Your task to perform on an android device: Add macbook pro 13 inch to the cart on ebay.com Image 0: 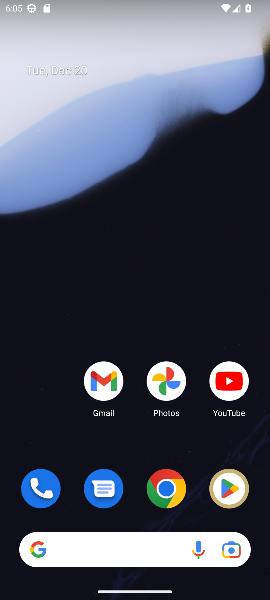
Step 0: click (63, 547)
Your task to perform on an android device: Add macbook pro 13 inch to the cart on ebay.com Image 1: 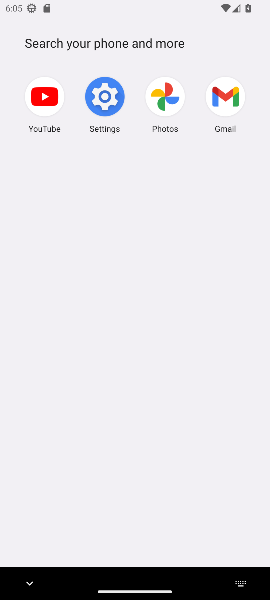
Step 1: press home button
Your task to perform on an android device: Add macbook pro 13 inch to the cart on ebay.com Image 2: 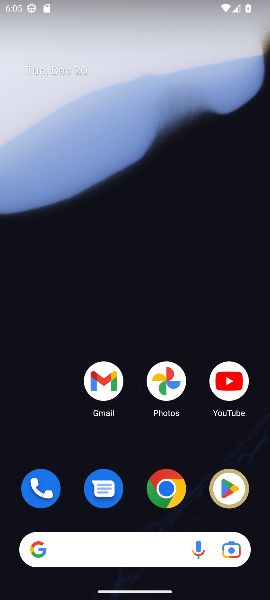
Step 2: drag from (65, 440) to (45, 30)
Your task to perform on an android device: Add macbook pro 13 inch to the cart on ebay.com Image 3: 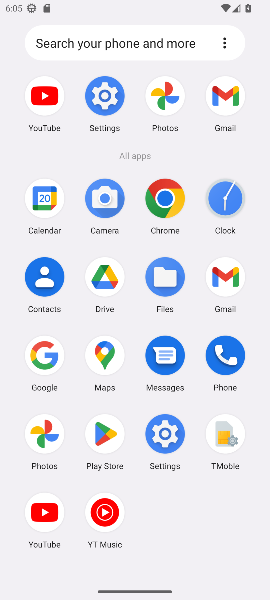
Step 3: click (43, 355)
Your task to perform on an android device: Add macbook pro 13 inch to the cart on ebay.com Image 4: 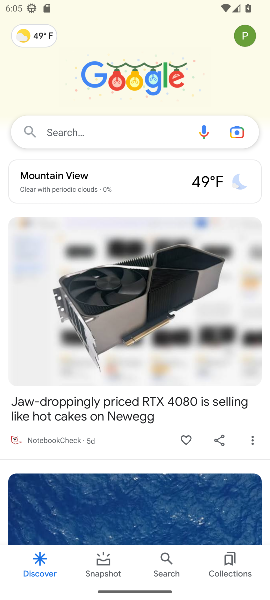
Step 4: click (67, 136)
Your task to perform on an android device: Add macbook pro 13 inch to the cart on ebay.com Image 5: 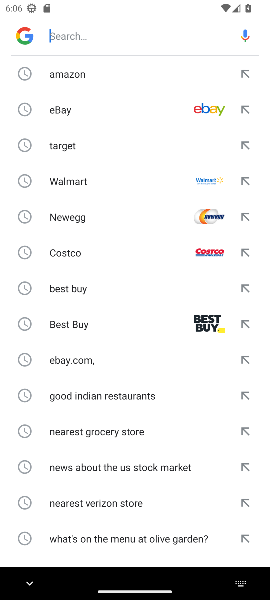
Step 5: type "ebay.com"
Your task to perform on an android device: Add macbook pro 13 inch to the cart on ebay.com Image 6: 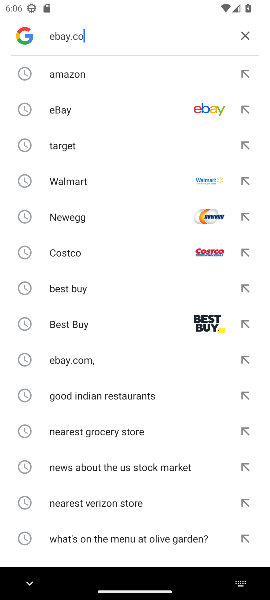
Step 6: press enter
Your task to perform on an android device: Add macbook pro 13 inch to the cart on ebay.com Image 7: 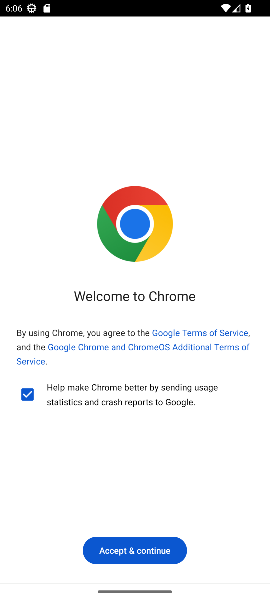
Step 7: click (128, 547)
Your task to perform on an android device: Add macbook pro 13 inch to the cart on ebay.com Image 8: 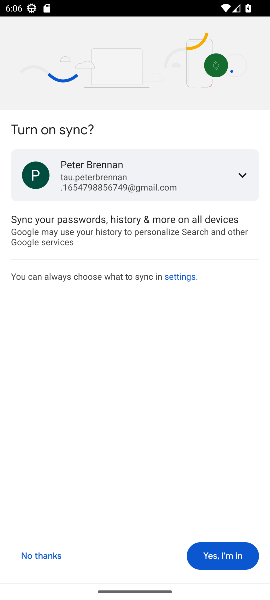
Step 8: click (212, 558)
Your task to perform on an android device: Add macbook pro 13 inch to the cart on ebay.com Image 9: 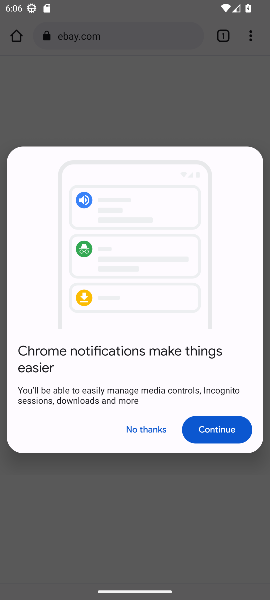
Step 9: click (226, 430)
Your task to perform on an android device: Add macbook pro 13 inch to the cart on ebay.com Image 10: 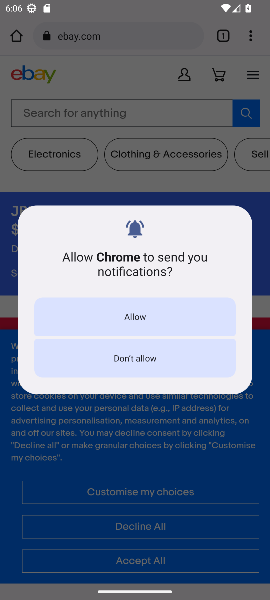
Step 10: click (139, 315)
Your task to perform on an android device: Add macbook pro 13 inch to the cart on ebay.com Image 11: 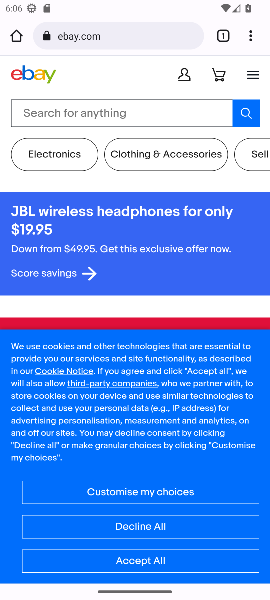
Step 11: click (165, 564)
Your task to perform on an android device: Add macbook pro 13 inch to the cart on ebay.com Image 12: 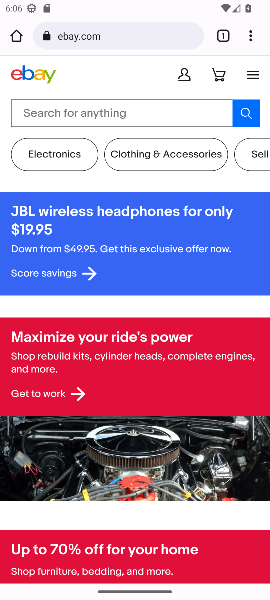
Step 12: click (114, 108)
Your task to perform on an android device: Add macbook pro 13 inch to the cart on ebay.com Image 13: 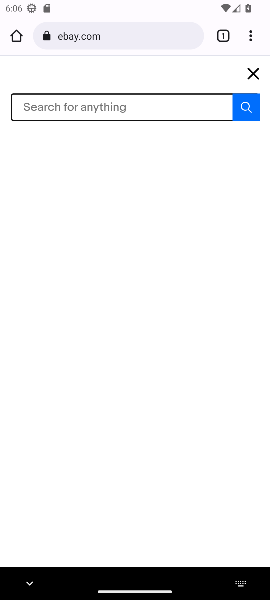
Step 13: type "macbook pro 13 inch"
Your task to perform on an android device: Add macbook pro 13 inch to the cart on ebay.com Image 14: 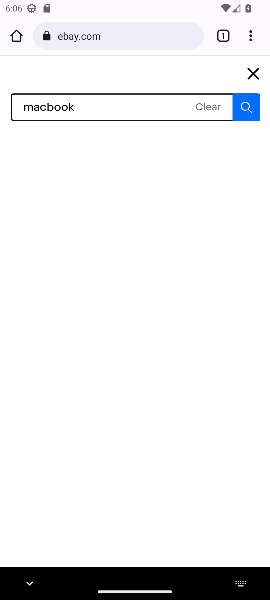
Step 14: press enter
Your task to perform on an android device: Add macbook pro 13 inch to the cart on ebay.com Image 15: 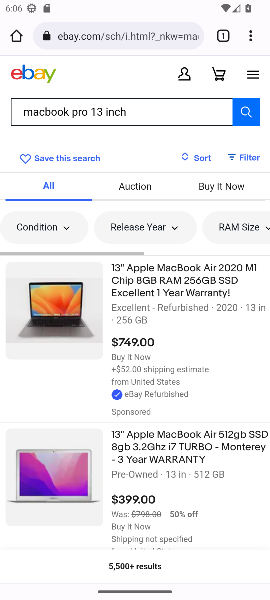
Step 15: click (162, 288)
Your task to perform on an android device: Add macbook pro 13 inch to the cart on ebay.com Image 16: 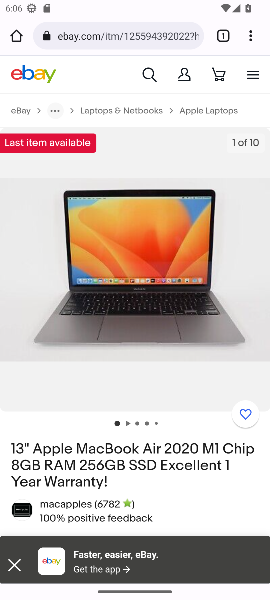
Step 16: drag from (149, 495) to (114, 140)
Your task to perform on an android device: Add macbook pro 13 inch to the cart on ebay.com Image 17: 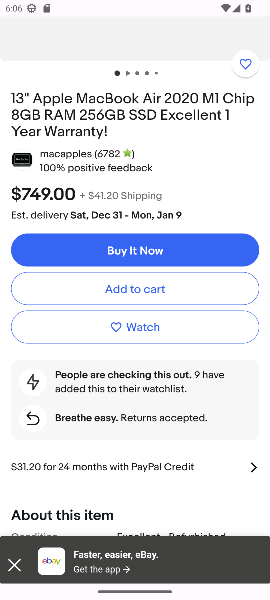
Step 17: click (119, 293)
Your task to perform on an android device: Add macbook pro 13 inch to the cart on ebay.com Image 18: 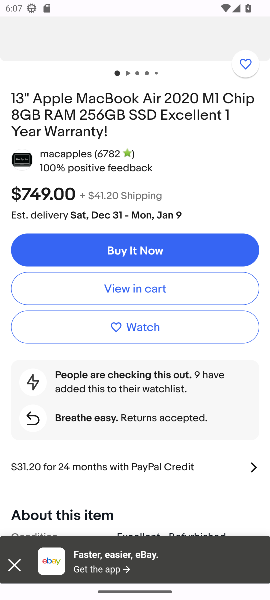
Step 18: task complete